Your task to perform on an android device: show emergency info Image 0: 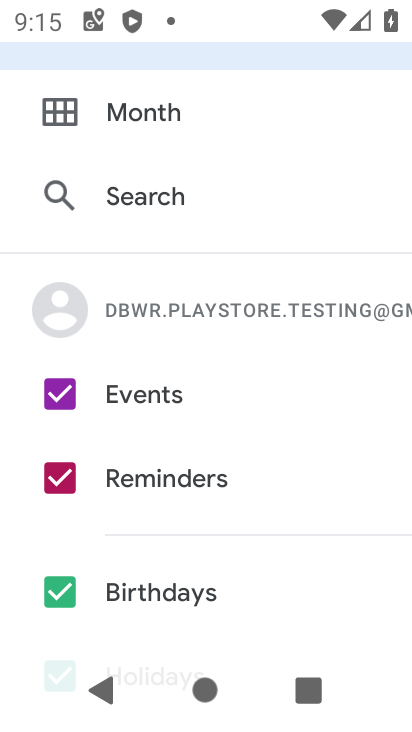
Step 0: press home button
Your task to perform on an android device: show emergency info Image 1: 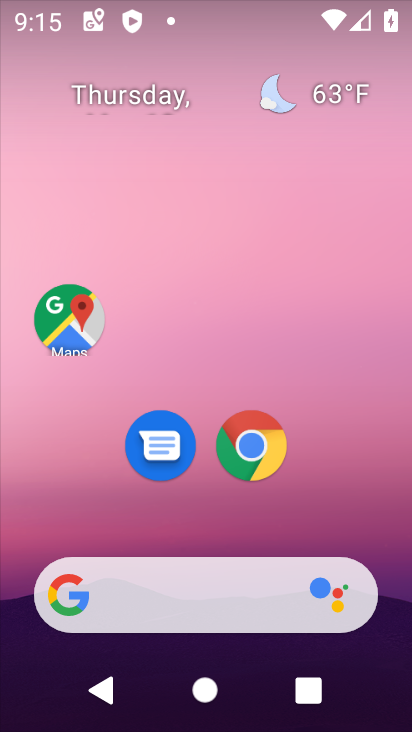
Step 1: drag from (191, 545) to (224, 184)
Your task to perform on an android device: show emergency info Image 2: 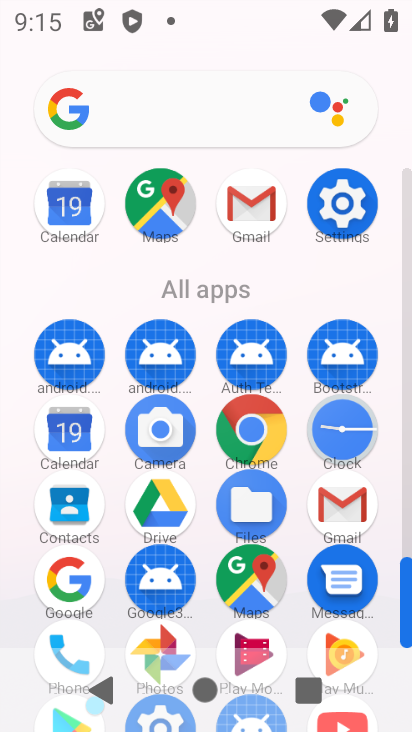
Step 2: click (355, 210)
Your task to perform on an android device: show emergency info Image 3: 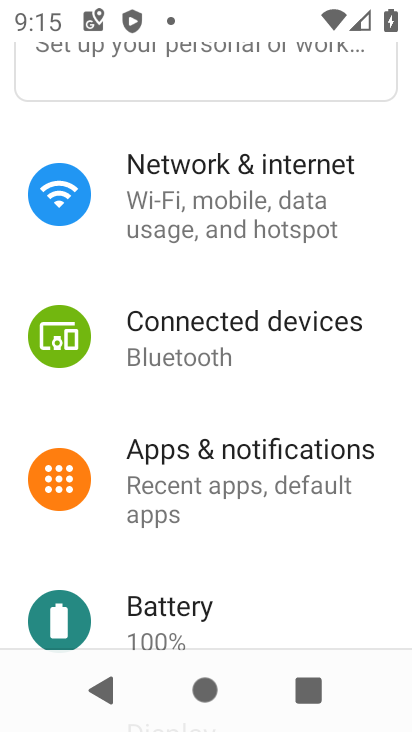
Step 3: drag from (246, 553) to (266, 143)
Your task to perform on an android device: show emergency info Image 4: 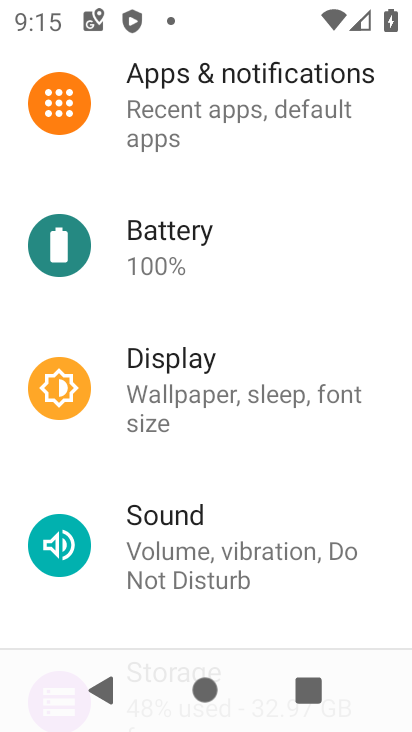
Step 4: drag from (279, 436) to (252, 0)
Your task to perform on an android device: show emergency info Image 5: 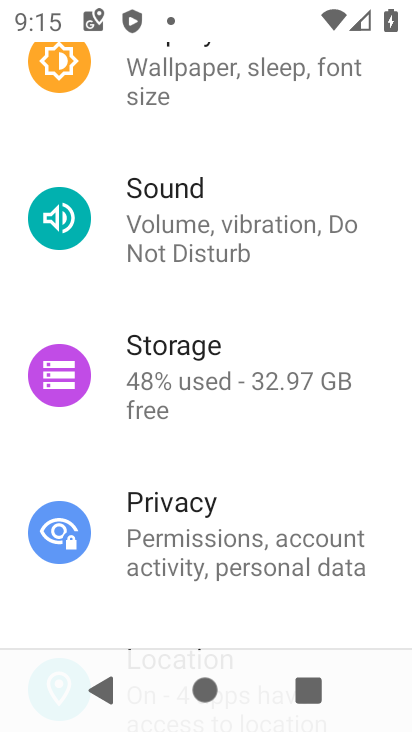
Step 5: drag from (197, 437) to (221, 13)
Your task to perform on an android device: show emergency info Image 6: 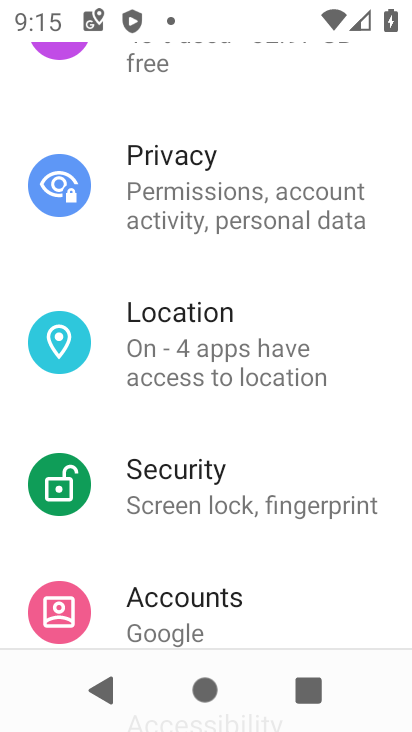
Step 6: drag from (214, 470) to (245, 5)
Your task to perform on an android device: show emergency info Image 7: 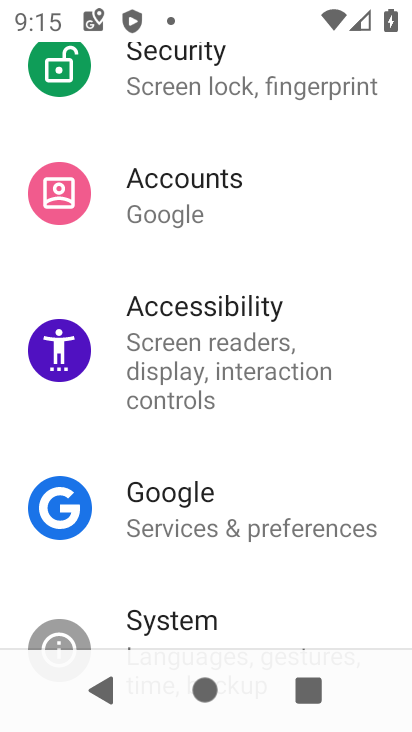
Step 7: drag from (234, 563) to (280, 18)
Your task to perform on an android device: show emergency info Image 8: 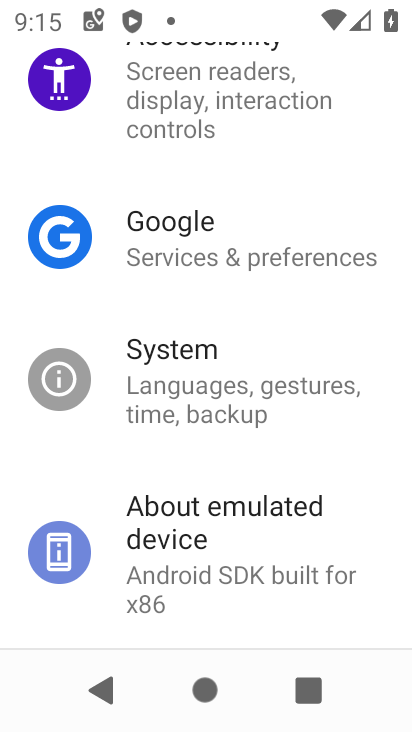
Step 8: drag from (206, 544) to (228, 260)
Your task to perform on an android device: show emergency info Image 9: 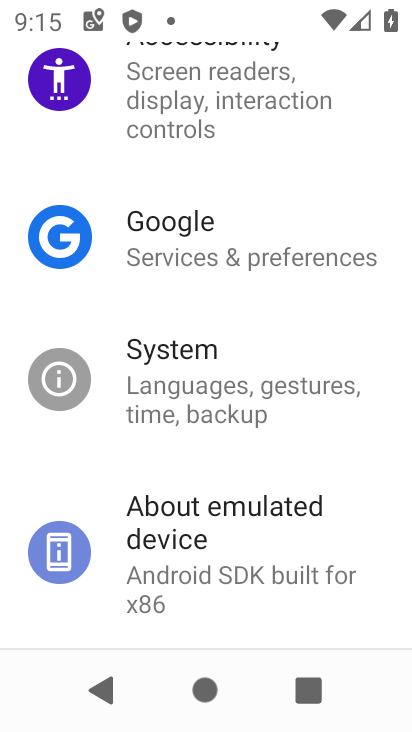
Step 9: click (220, 530)
Your task to perform on an android device: show emergency info Image 10: 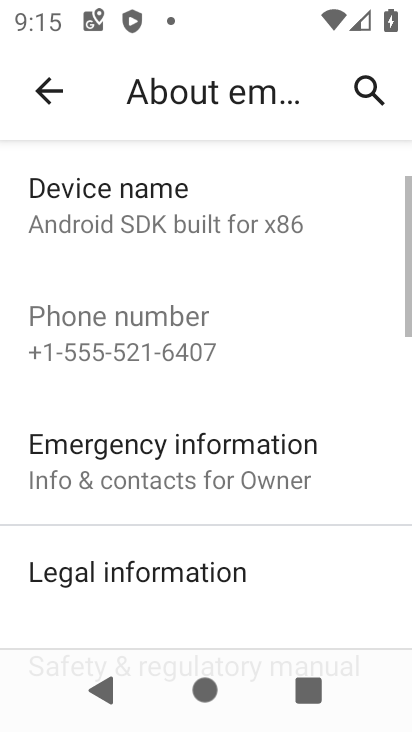
Step 10: click (205, 475)
Your task to perform on an android device: show emergency info Image 11: 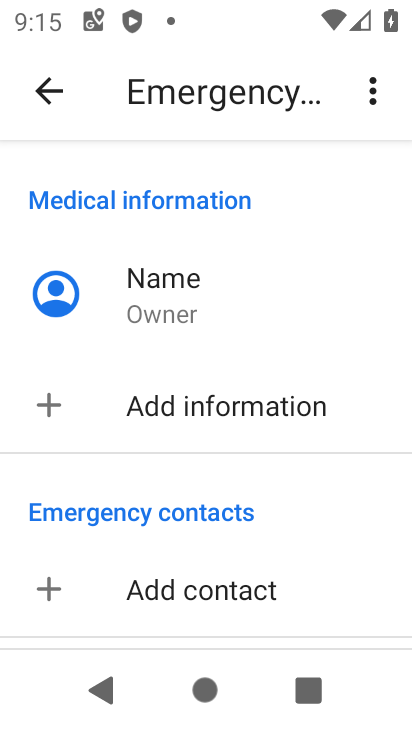
Step 11: task complete